Your task to perform on an android device: Open Yahoo.com Image 0: 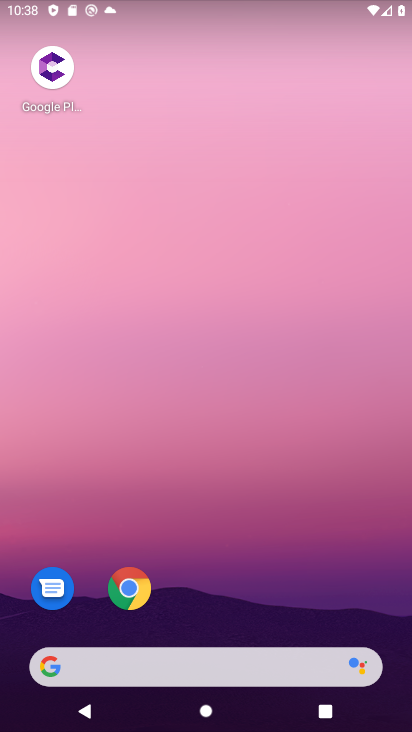
Step 0: click (139, 593)
Your task to perform on an android device: Open Yahoo.com Image 1: 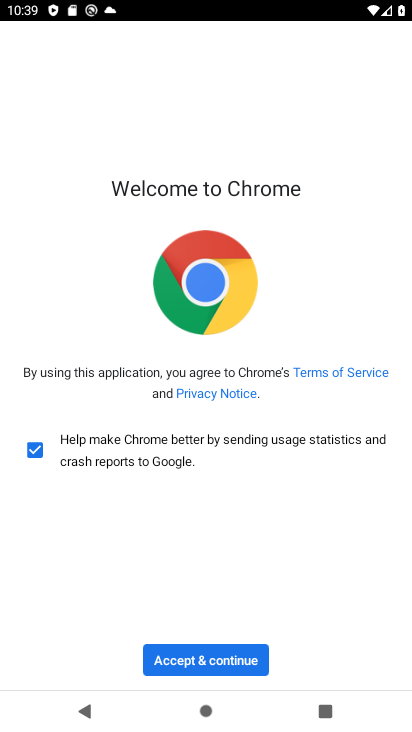
Step 1: click (207, 659)
Your task to perform on an android device: Open Yahoo.com Image 2: 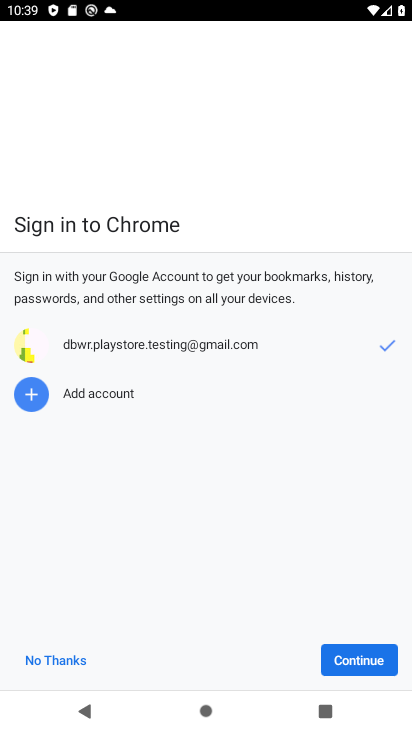
Step 2: click (365, 659)
Your task to perform on an android device: Open Yahoo.com Image 3: 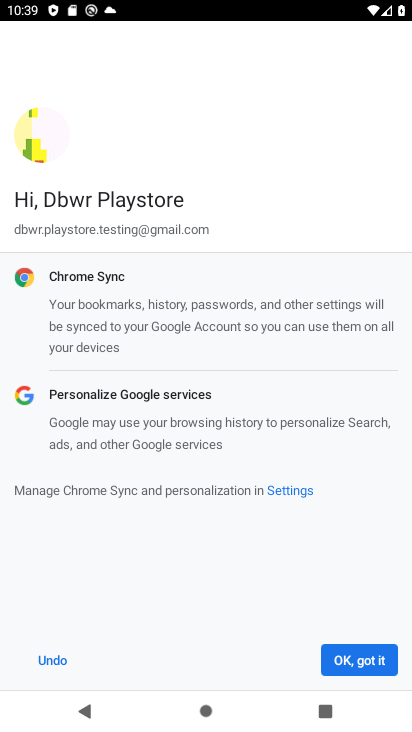
Step 3: click (361, 651)
Your task to perform on an android device: Open Yahoo.com Image 4: 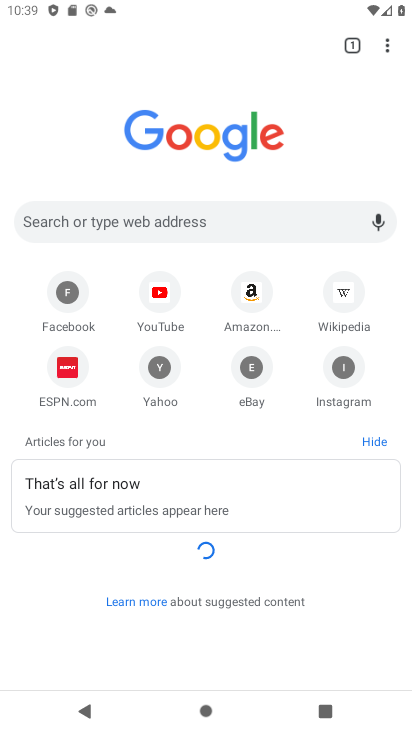
Step 4: click (162, 222)
Your task to perform on an android device: Open Yahoo.com Image 5: 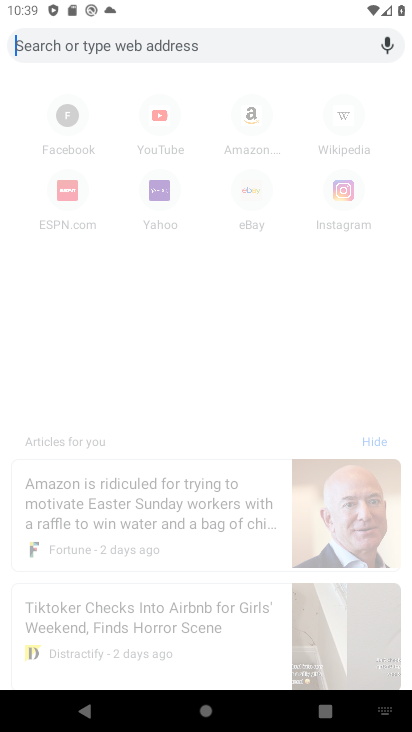
Step 5: click (162, 194)
Your task to perform on an android device: Open Yahoo.com Image 6: 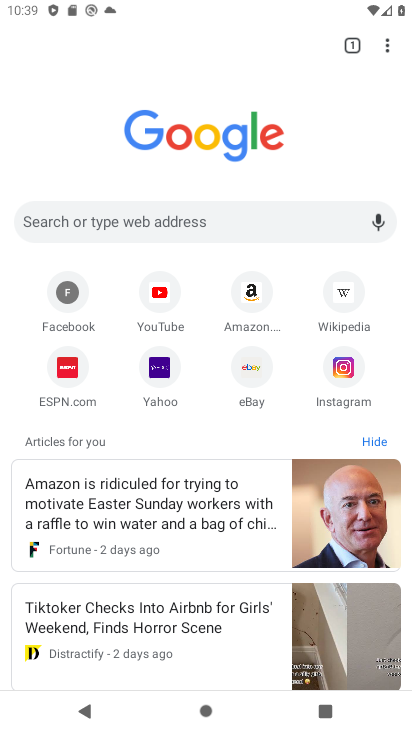
Step 6: click (159, 363)
Your task to perform on an android device: Open Yahoo.com Image 7: 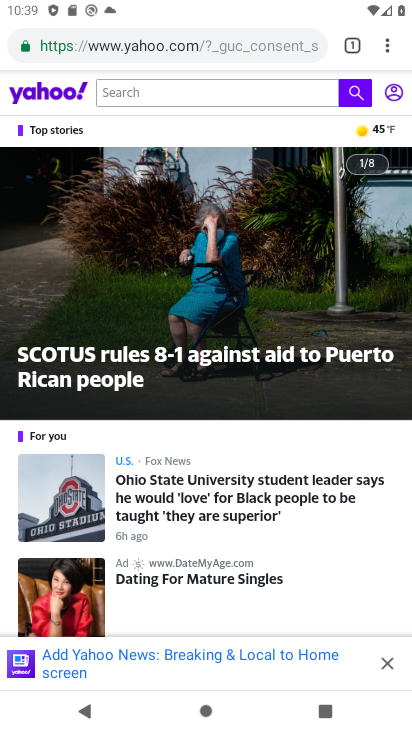
Step 7: task complete